Your task to perform on an android device: open app "Truecaller" (install if not already installed) Image 0: 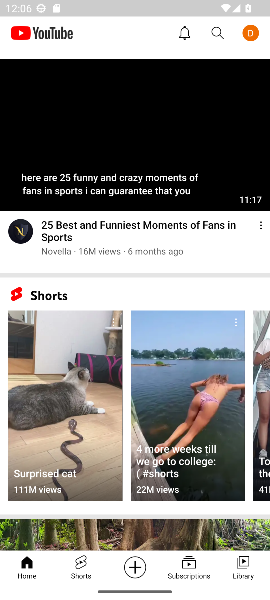
Step 0: press home button
Your task to perform on an android device: open app "Truecaller" (install if not already installed) Image 1: 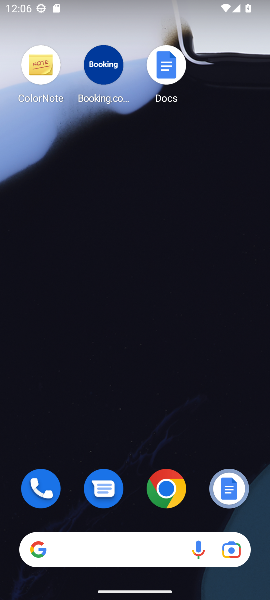
Step 1: click (133, 512)
Your task to perform on an android device: open app "Truecaller" (install if not already installed) Image 2: 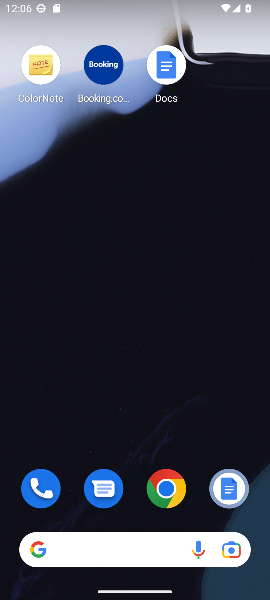
Step 2: drag from (129, 483) to (83, 116)
Your task to perform on an android device: open app "Truecaller" (install if not already installed) Image 3: 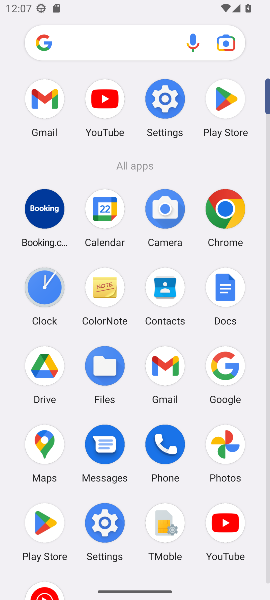
Step 3: click (224, 100)
Your task to perform on an android device: open app "Truecaller" (install if not already installed) Image 4: 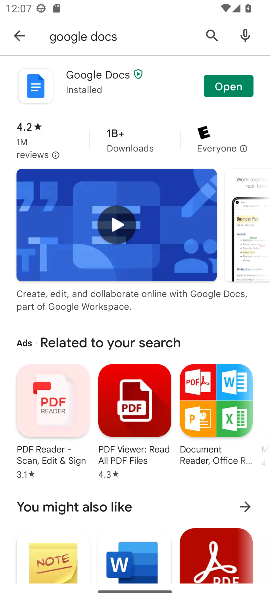
Step 4: click (21, 38)
Your task to perform on an android device: open app "Truecaller" (install if not already installed) Image 5: 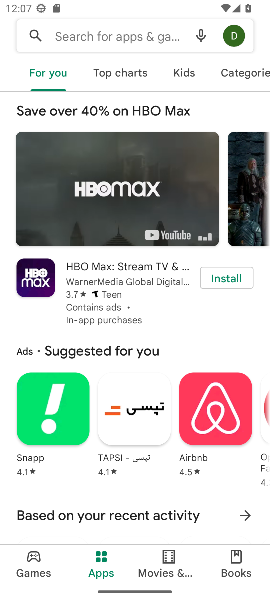
Step 5: click (86, 35)
Your task to perform on an android device: open app "Truecaller" (install if not already installed) Image 6: 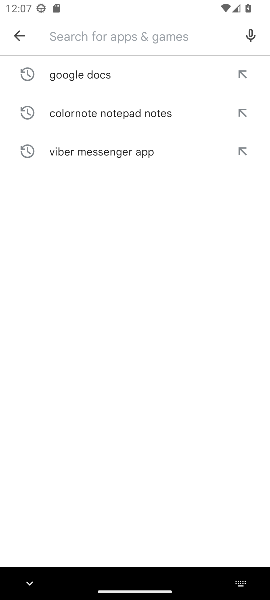
Step 6: type "Truecaller"
Your task to perform on an android device: open app "Truecaller" (install if not already installed) Image 7: 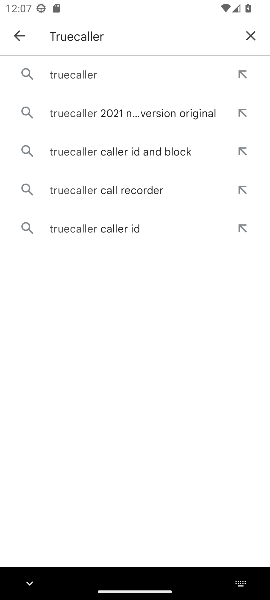
Step 7: click (74, 75)
Your task to perform on an android device: open app "Truecaller" (install if not already installed) Image 8: 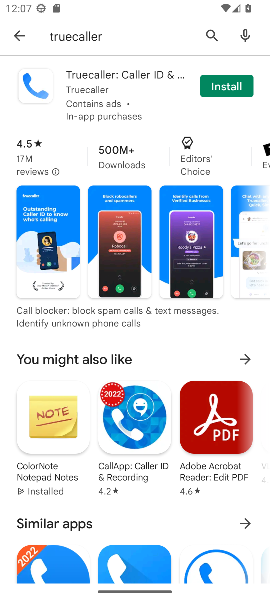
Step 8: click (231, 83)
Your task to perform on an android device: open app "Truecaller" (install if not already installed) Image 9: 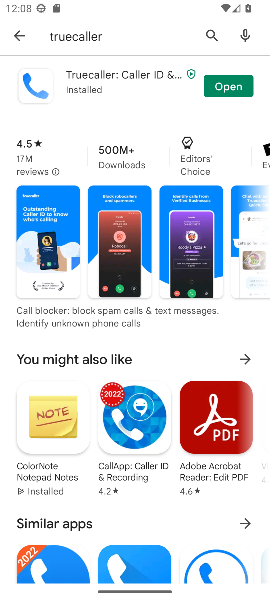
Step 9: click (231, 83)
Your task to perform on an android device: open app "Truecaller" (install if not already installed) Image 10: 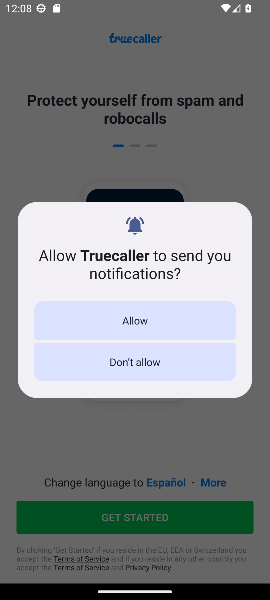
Step 10: task complete